Your task to perform on an android device: manage bookmarks in the chrome app Image 0: 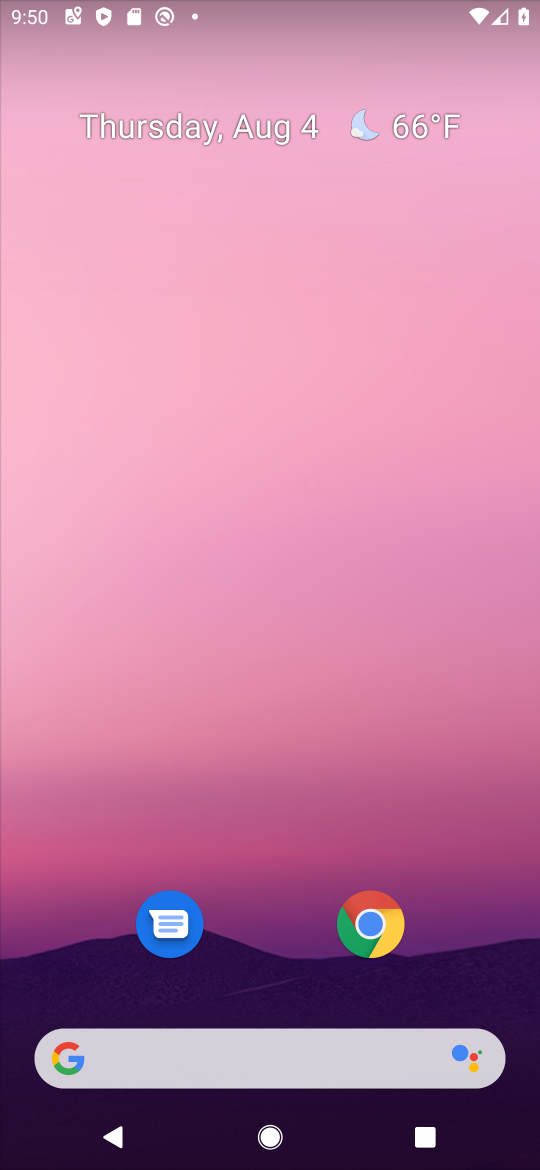
Step 0: click (378, 928)
Your task to perform on an android device: manage bookmarks in the chrome app Image 1: 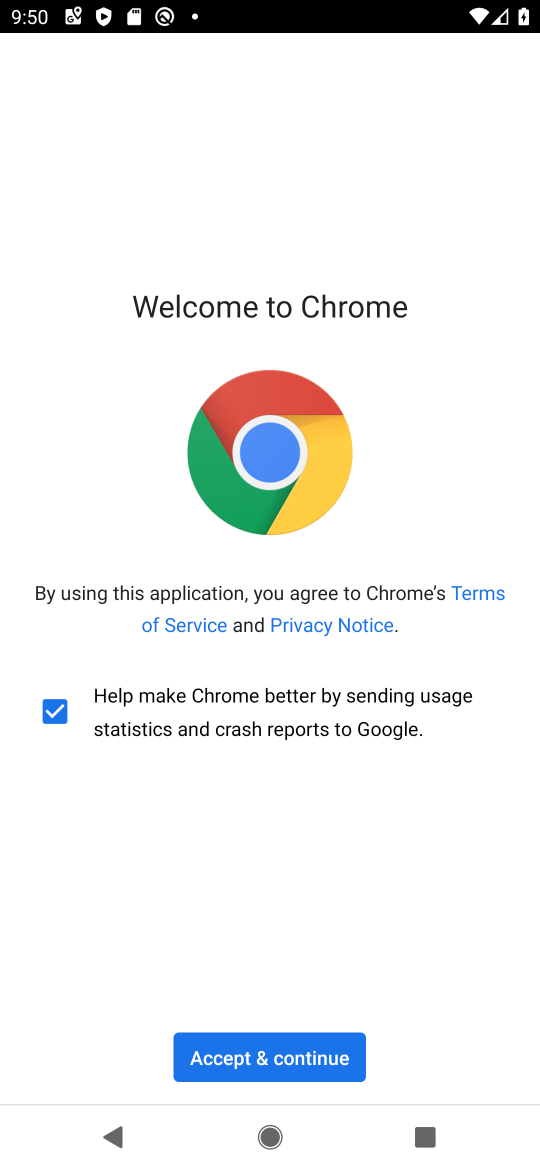
Step 1: click (237, 1059)
Your task to perform on an android device: manage bookmarks in the chrome app Image 2: 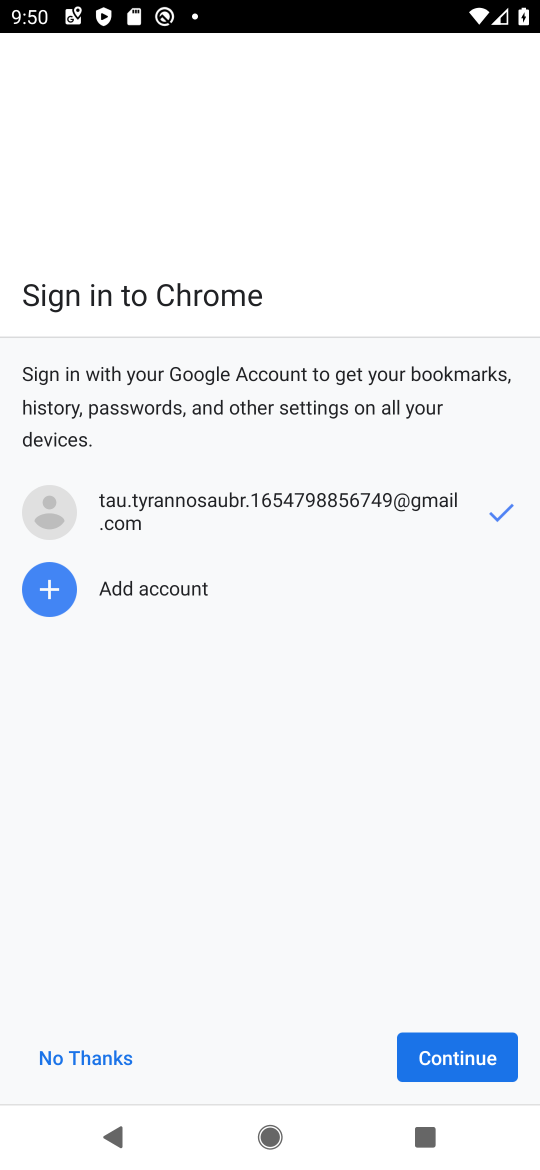
Step 2: click (480, 1043)
Your task to perform on an android device: manage bookmarks in the chrome app Image 3: 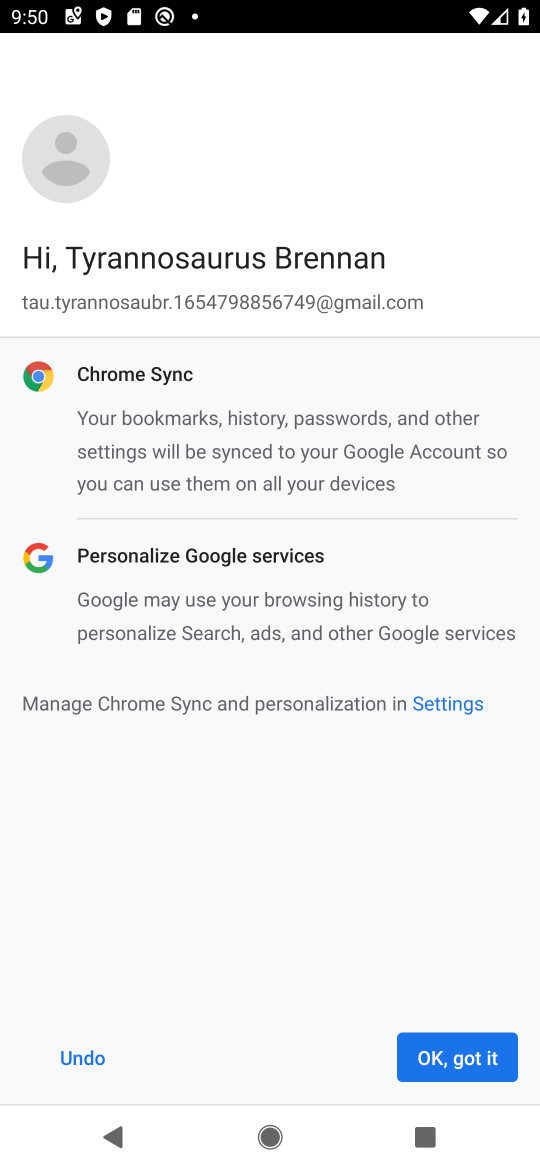
Step 3: click (486, 1049)
Your task to perform on an android device: manage bookmarks in the chrome app Image 4: 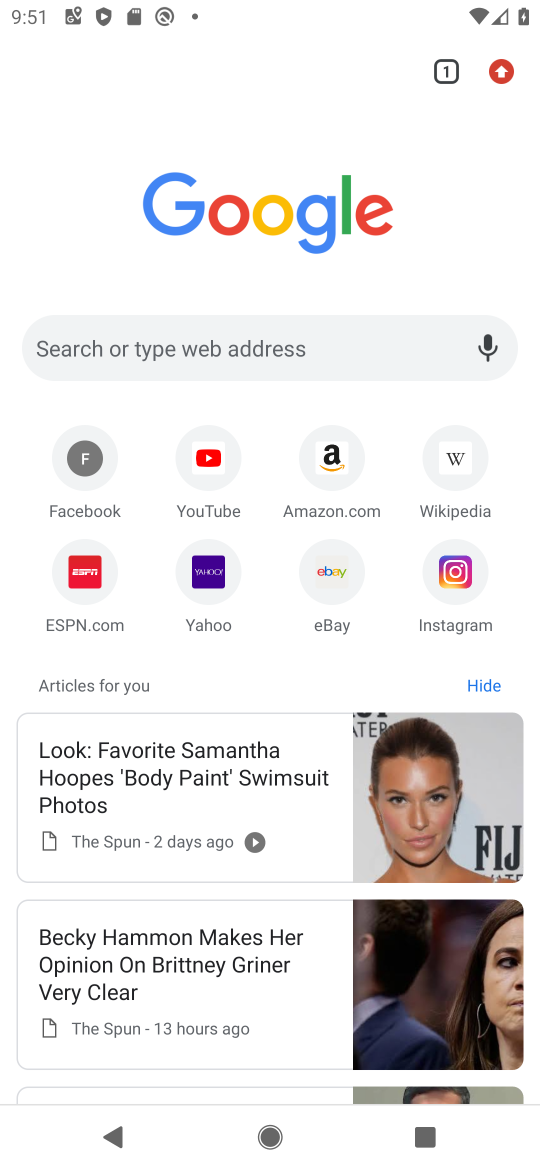
Step 4: click (496, 65)
Your task to perform on an android device: manage bookmarks in the chrome app Image 5: 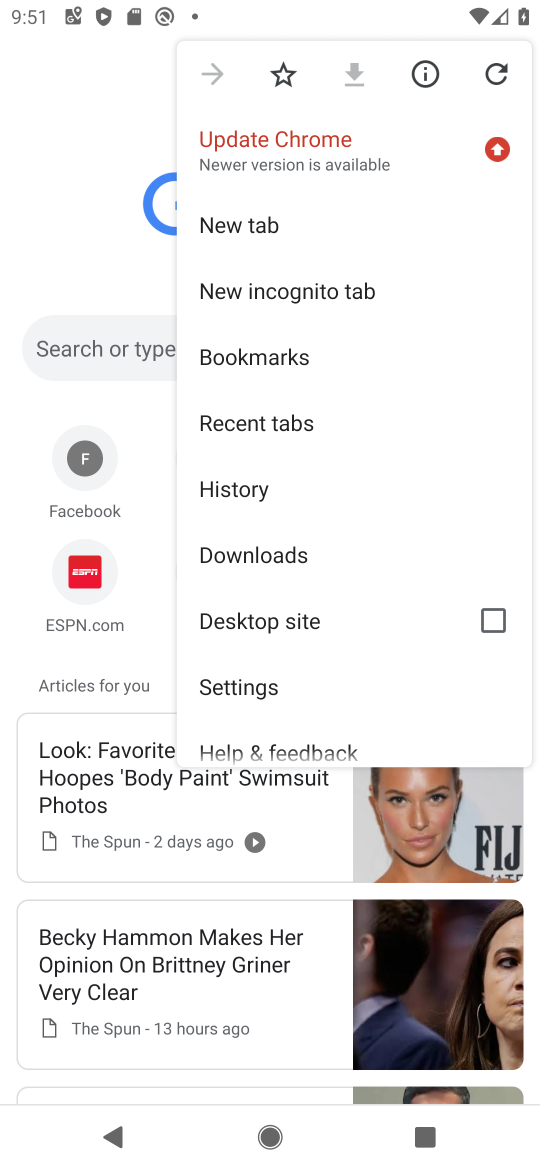
Step 5: click (251, 356)
Your task to perform on an android device: manage bookmarks in the chrome app Image 6: 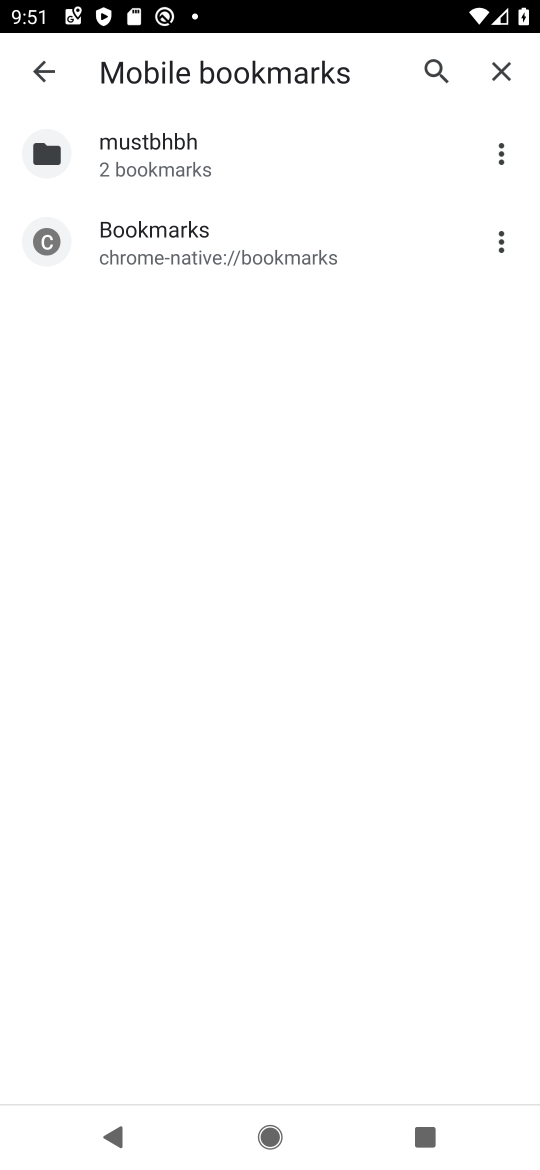
Step 6: task complete